Your task to perform on an android device: Turn off the flashlight Image 0: 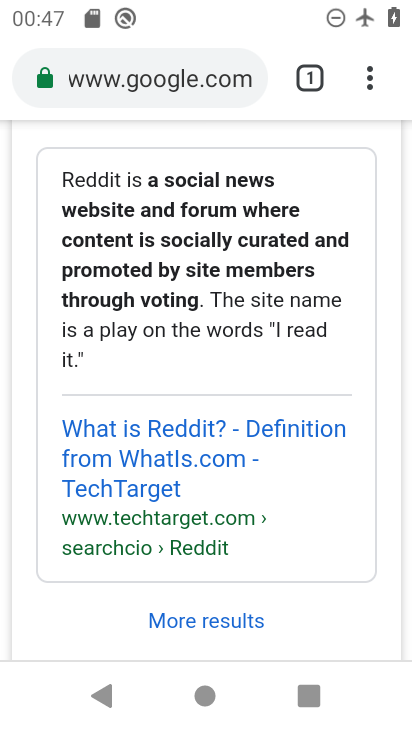
Step 0: press home button
Your task to perform on an android device: Turn off the flashlight Image 1: 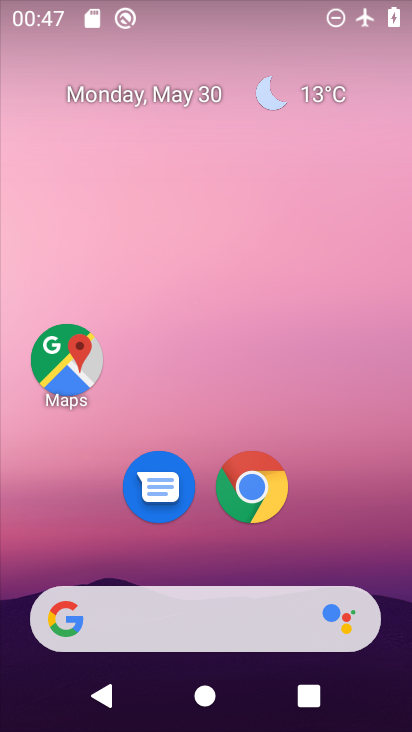
Step 1: drag from (384, 721) to (340, 162)
Your task to perform on an android device: Turn off the flashlight Image 2: 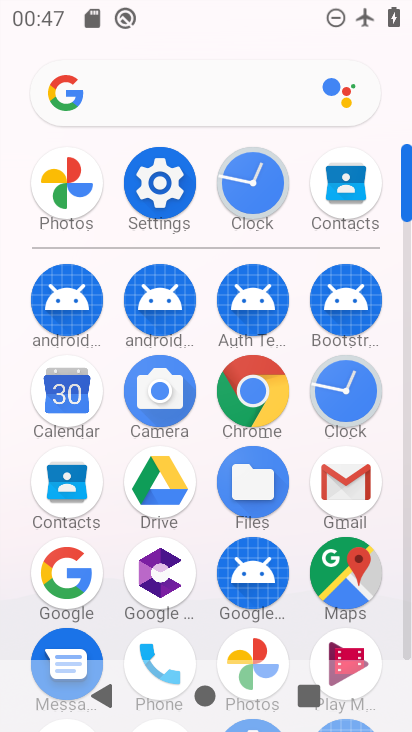
Step 2: click (139, 198)
Your task to perform on an android device: Turn off the flashlight Image 3: 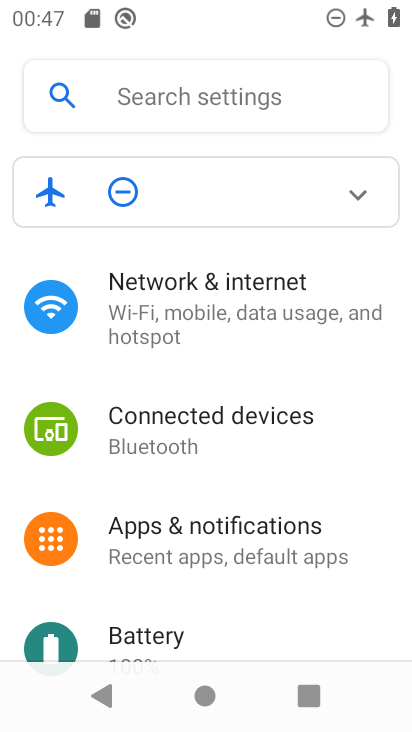
Step 3: click (204, 304)
Your task to perform on an android device: Turn off the flashlight Image 4: 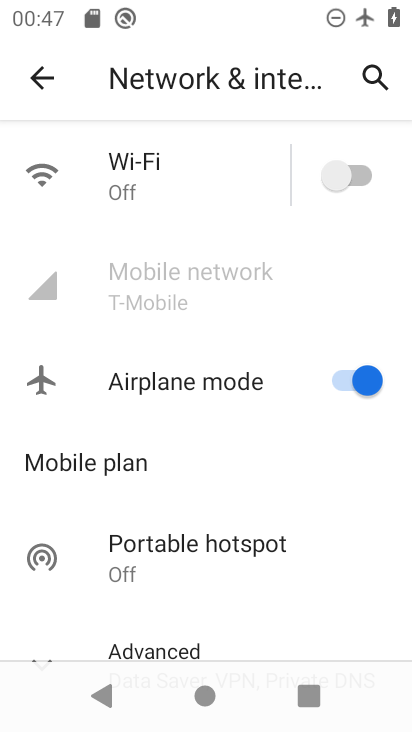
Step 4: click (360, 173)
Your task to perform on an android device: Turn off the flashlight Image 5: 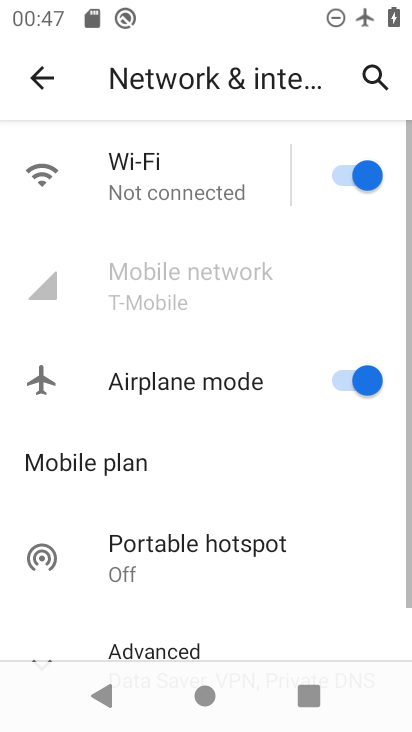
Step 5: click (336, 379)
Your task to perform on an android device: Turn off the flashlight Image 6: 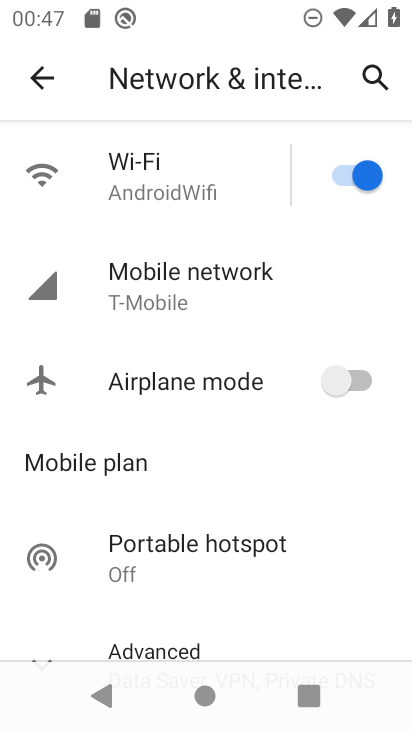
Step 6: click (44, 78)
Your task to perform on an android device: Turn off the flashlight Image 7: 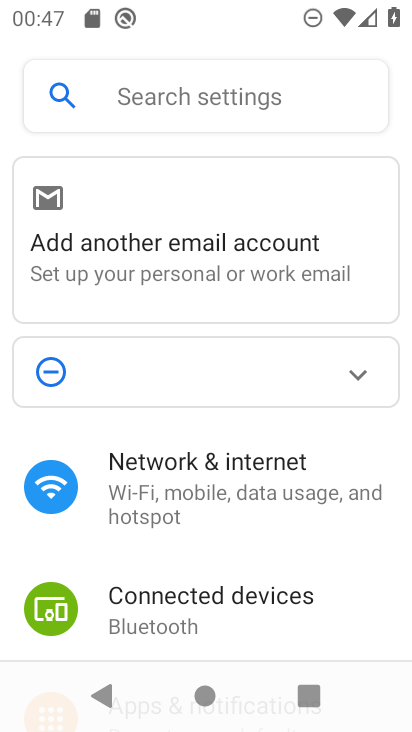
Step 7: drag from (194, 597) to (211, 249)
Your task to perform on an android device: Turn off the flashlight Image 8: 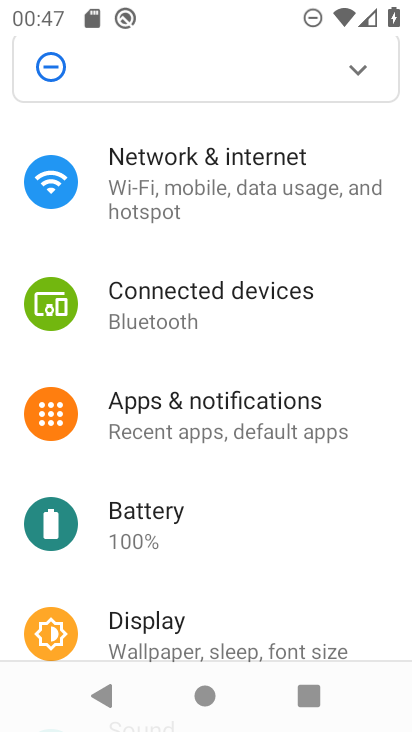
Step 8: click (166, 630)
Your task to perform on an android device: Turn off the flashlight Image 9: 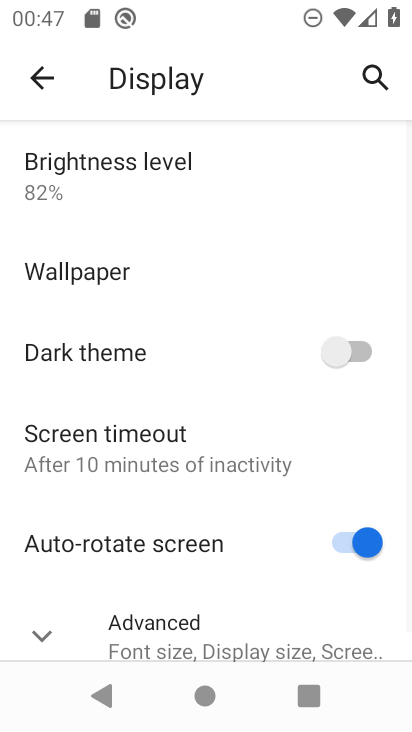
Step 9: task complete